Your task to perform on an android device: delete a single message in the gmail app Image 0: 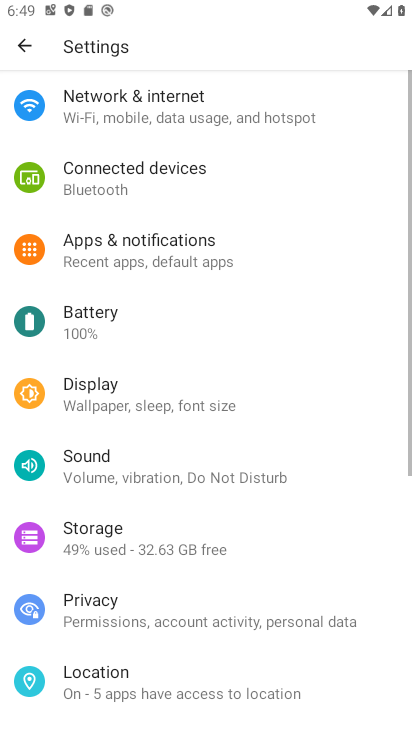
Step 0: press home button
Your task to perform on an android device: delete a single message in the gmail app Image 1: 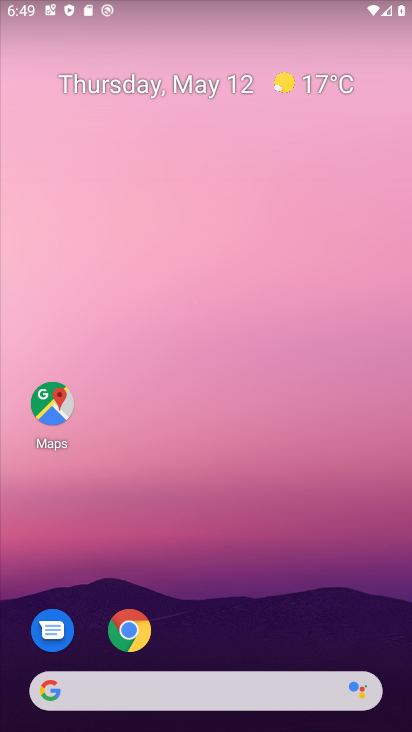
Step 1: drag from (257, 619) to (147, 19)
Your task to perform on an android device: delete a single message in the gmail app Image 2: 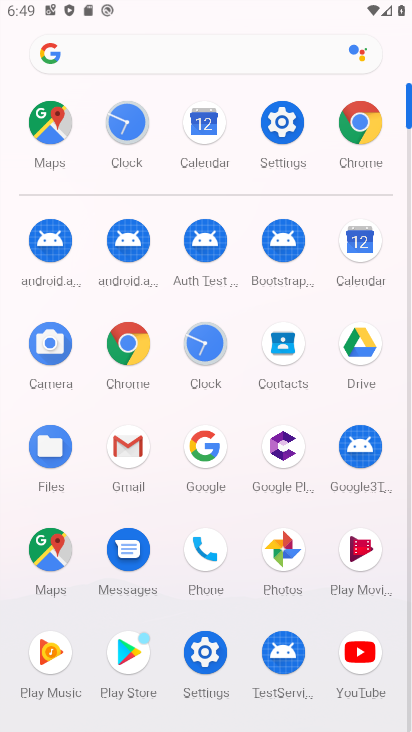
Step 2: click (126, 441)
Your task to perform on an android device: delete a single message in the gmail app Image 3: 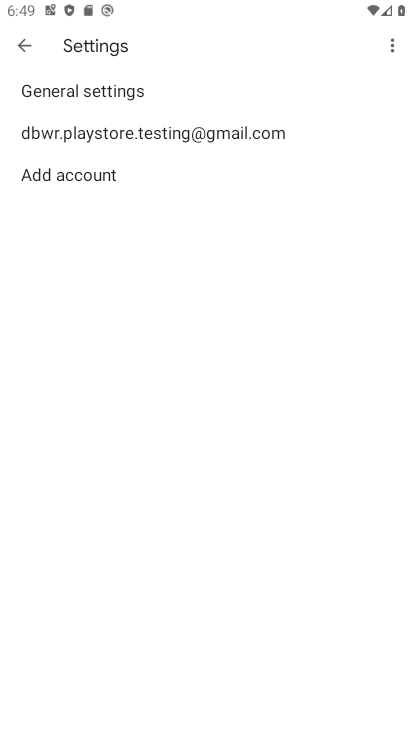
Step 3: press back button
Your task to perform on an android device: delete a single message in the gmail app Image 4: 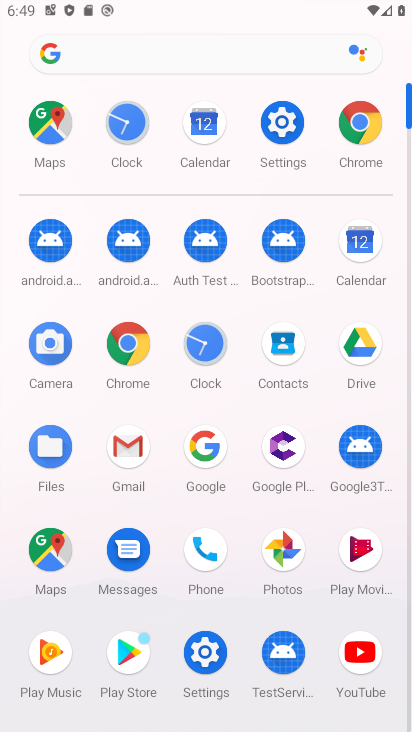
Step 4: click (134, 456)
Your task to perform on an android device: delete a single message in the gmail app Image 5: 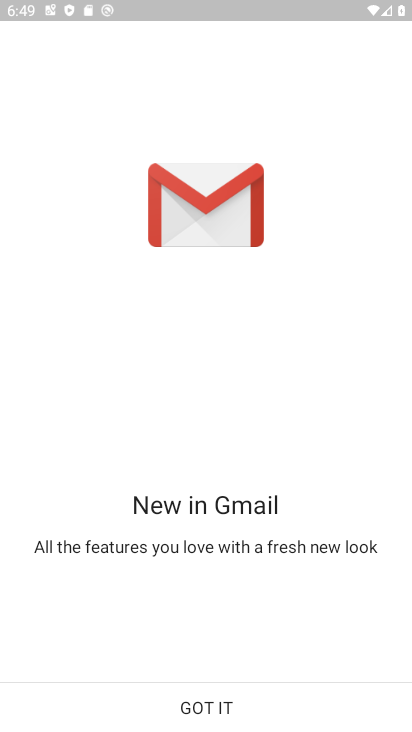
Step 5: click (166, 689)
Your task to perform on an android device: delete a single message in the gmail app Image 6: 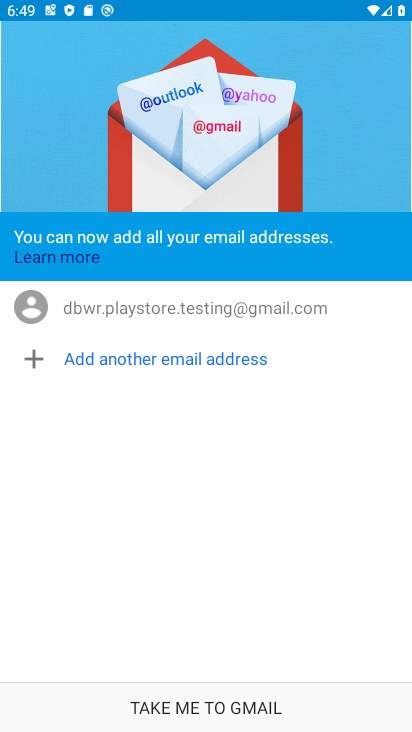
Step 6: click (166, 689)
Your task to perform on an android device: delete a single message in the gmail app Image 7: 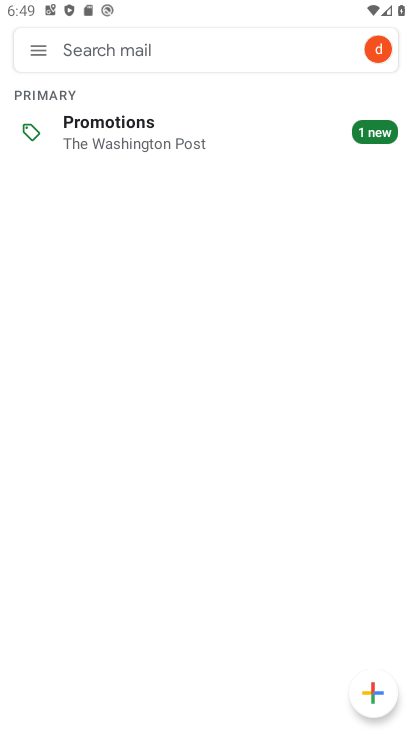
Step 7: click (26, 58)
Your task to perform on an android device: delete a single message in the gmail app Image 8: 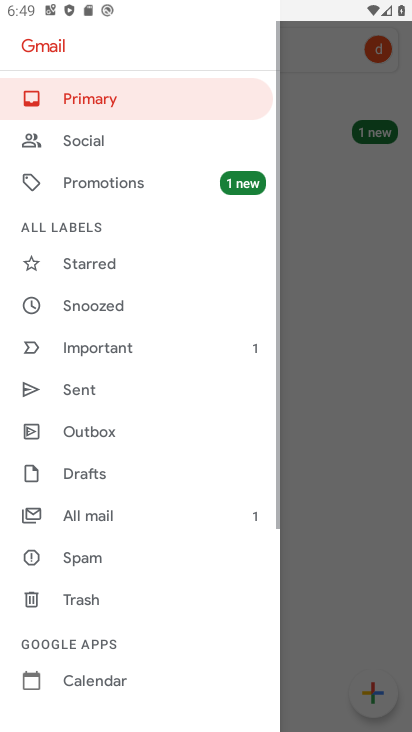
Step 8: click (82, 111)
Your task to perform on an android device: delete a single message in the gmail app Image 9: 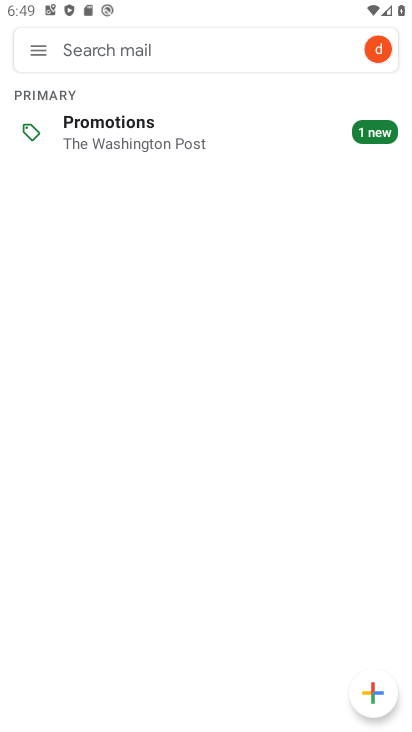
Step 9: task complete